Your task to perform on an android device: Open Android settings Image 0: 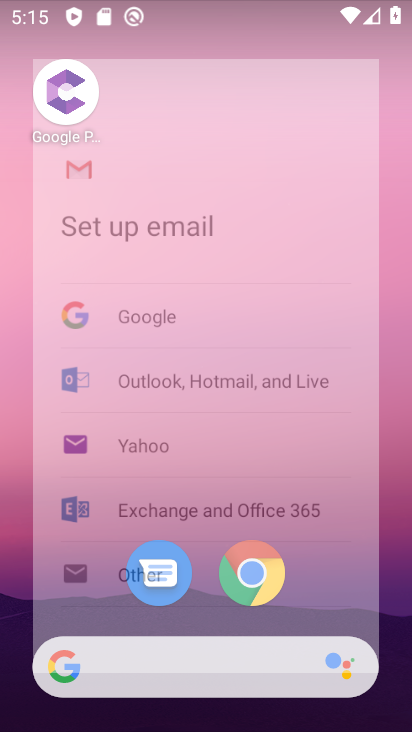
Step 0: drag from (263, 359) to (248, 252)
Your task to perform on an android device: Open Android settings Image 1: 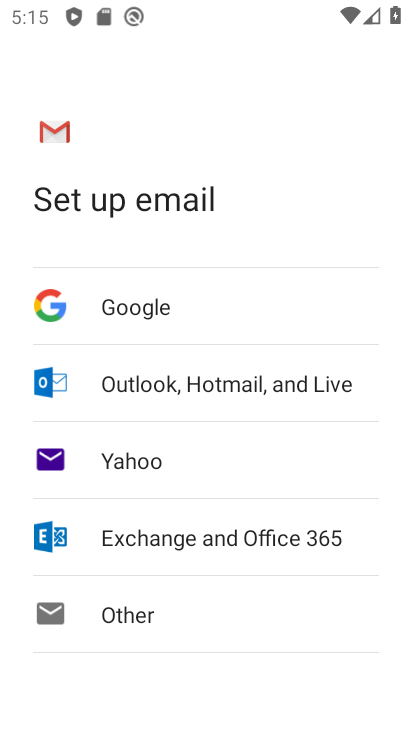
Step 1: press home button
Your task to perform on an android device: Open Android settings Image 2: 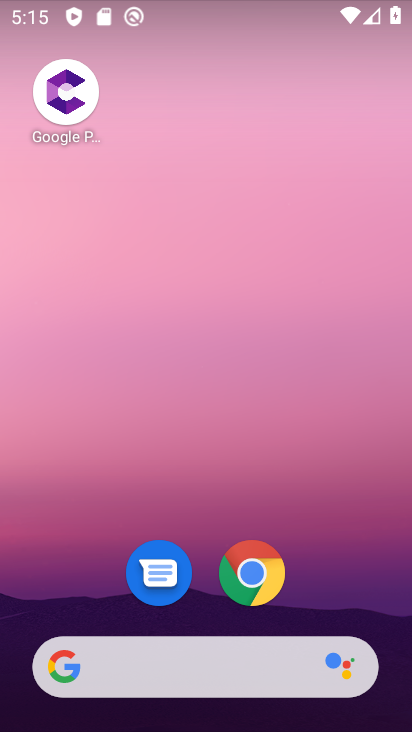
Step 2: drag from (332, 585) to (288, 172)
Your task to perform on an android device: Open Android settings Image 3: 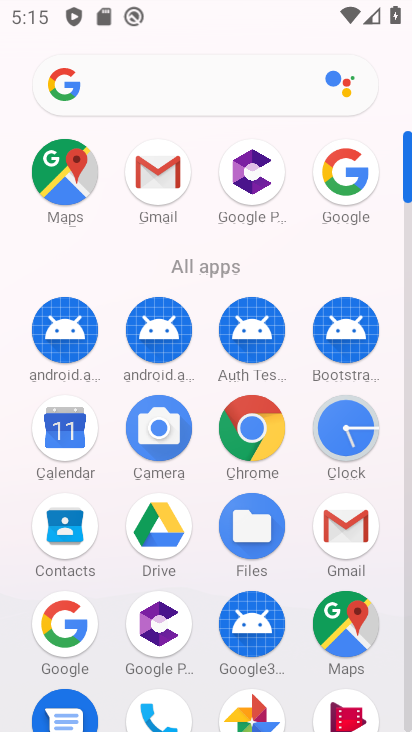
Step 3: drag from (280, 636) to (300, 378)
Your task to perform on an android device: Open Android settings Image 4: 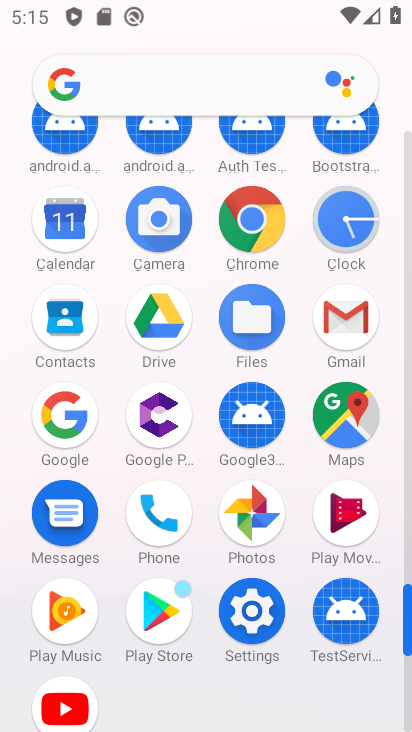
Step 4: click (251, 604)
Your task to perform on an android device: Open Android settings Image 5: 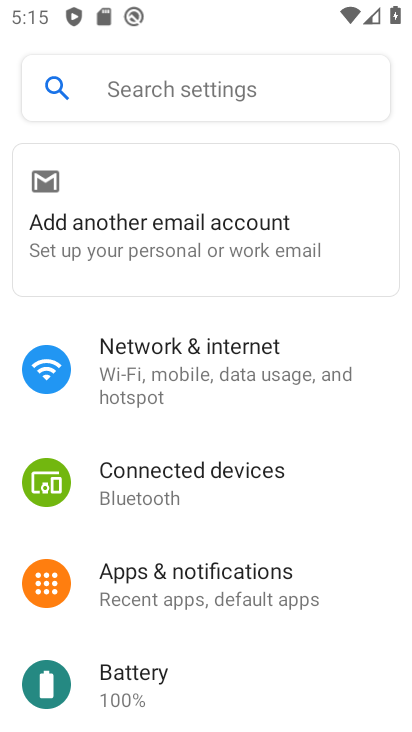
Step 5: drag from (238, 639) to (273, 345)
Your task to perform on an android device: Open Android settings Image 6: 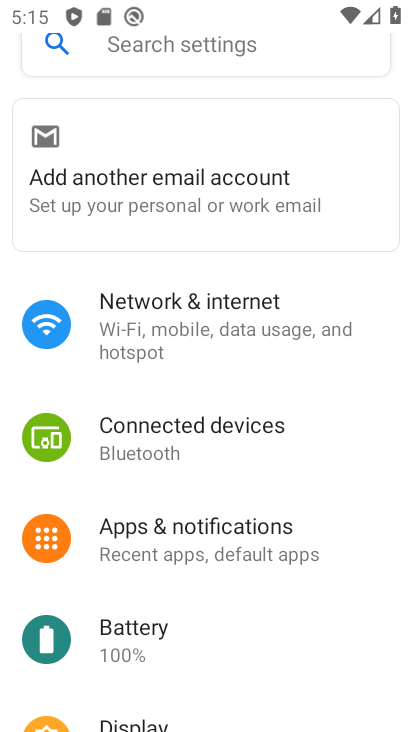
Step 6: drag from (227, 634) to (227, 249)
Your task to perform on an android device: Open Android settings Image 7: 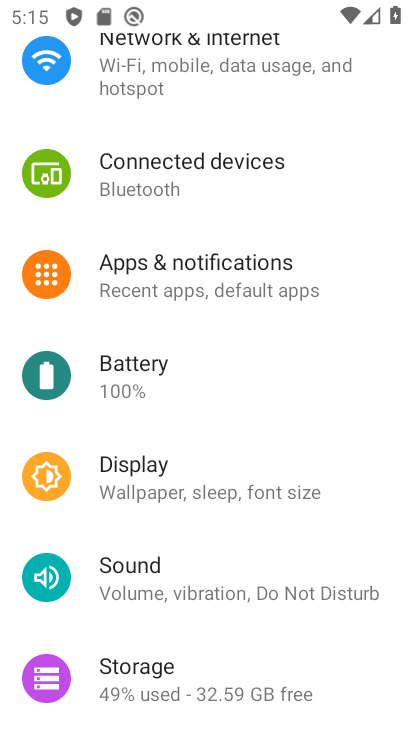
Step 7: drag from (194, 620) to (231, 224)
Your task to perform on an android device: Open Android settings Image 8: 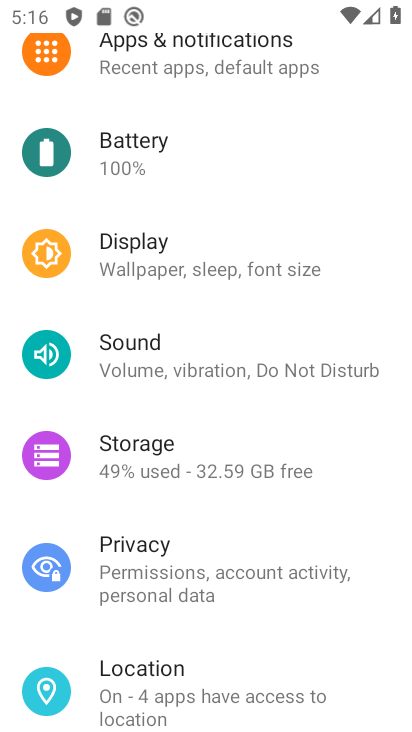
Step 8: drag from (243, 635) to (235, 337)
Your task to perform on an android device: Open Android settings Image 9: 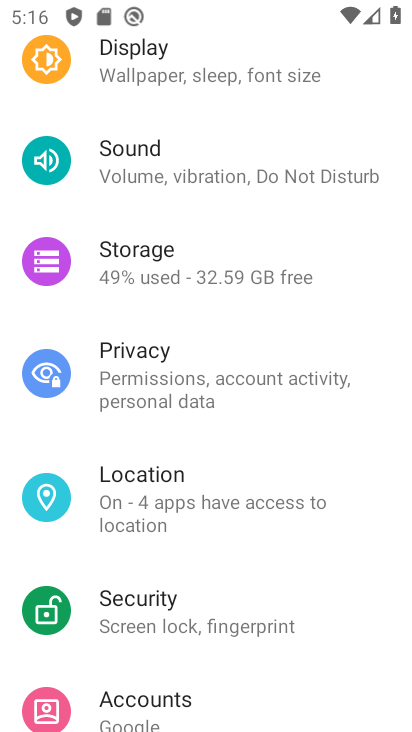
Step 9: drag from (218, 664) to (261, 371)
Your task to perform on an android device: Open Android settings Image 10: 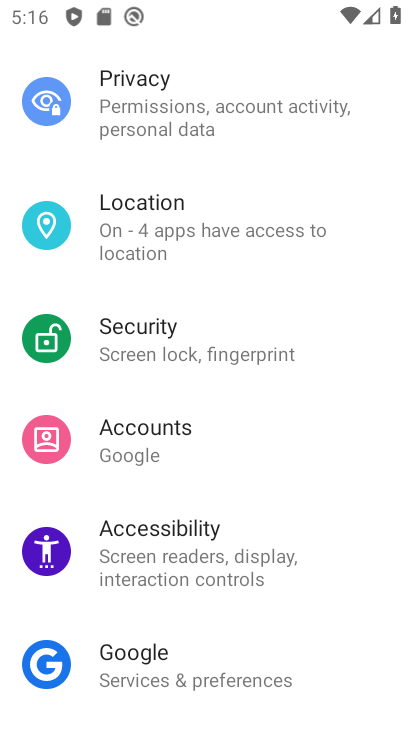
Step 10: drag from (207, 643) to (229, 339)
Your task to perform on an android device: Open Android settings Image 11: 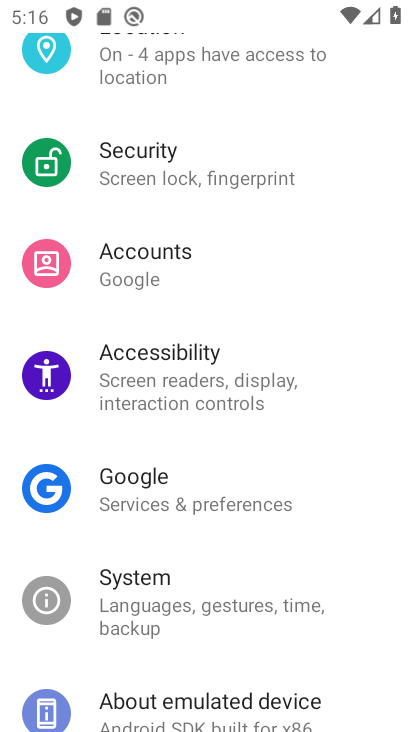
Step 11: click (175, 703)
Your task to perform on an android device: Open Android settings Image 12: 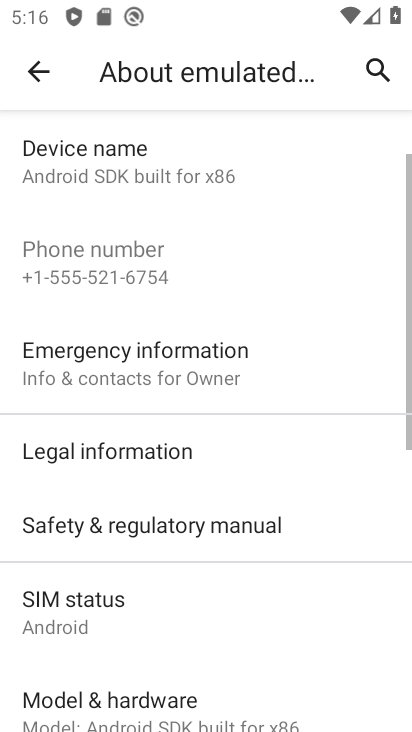
Step 12: drag from (188, 647) to (221, 423)
Your task to perform on an android device: Open Android settings Image 13: 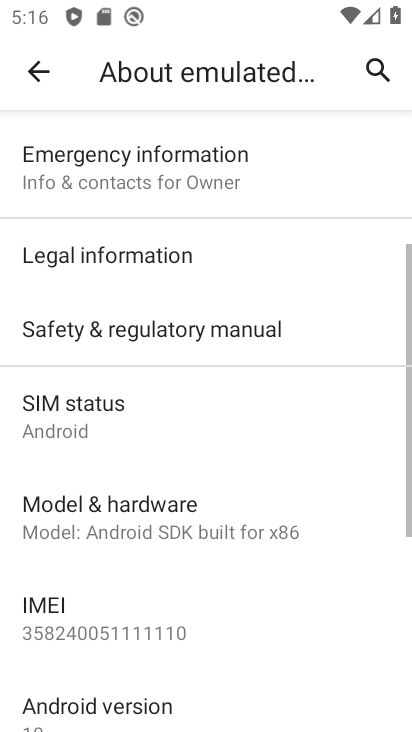
Step 13: click (104, 425)
Your task to perform on an android device: Open Android settings Image 14: 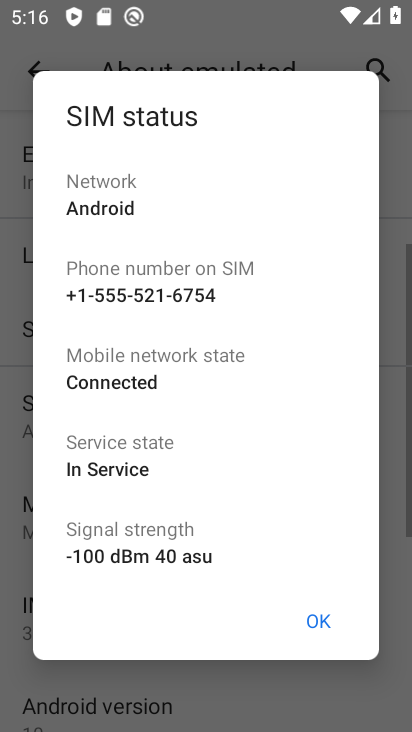
Step 14: click (323, 622)
Your task to perform on an android device: Open Android settings Image 15: 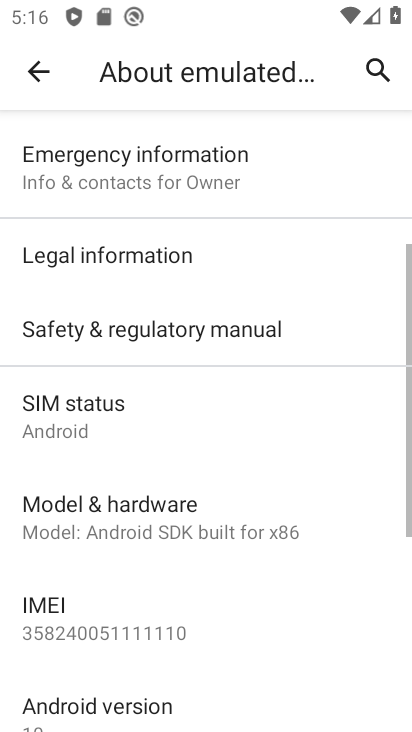
Step 15: task complete